Your task to perform on an android device: Search for pizza restaurants on Maps Image 0: 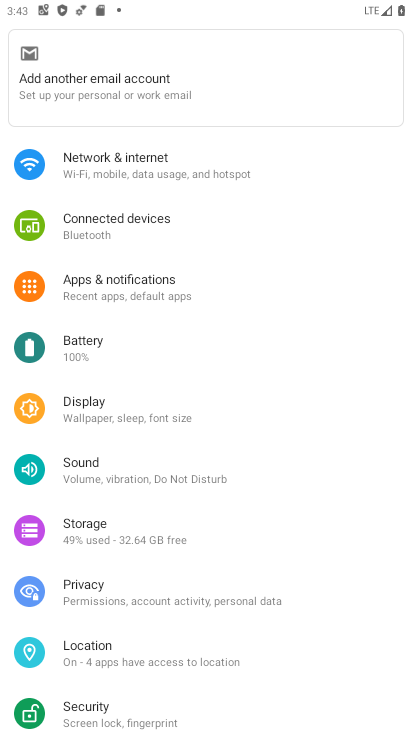
Step 0: press home button
Your task to perform on an android device: Search for pizza restaurants on Maps Image 1: 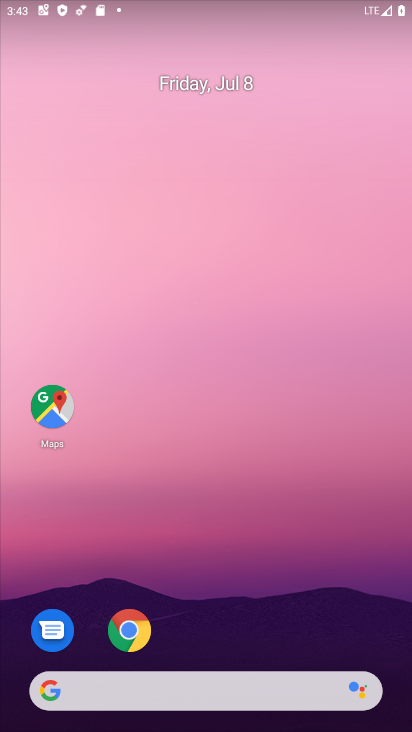
Step 1: click (49, 405)
Your task to perform on an android device: Search for pizza restaurants on Maps Image 2: 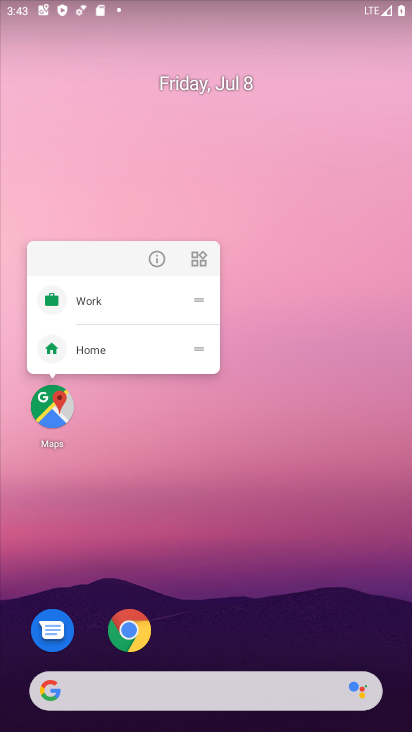
Step 2: click (49, 405)
Your task to perform on an android device: Search for pizza restaurants on Maps Image 3: 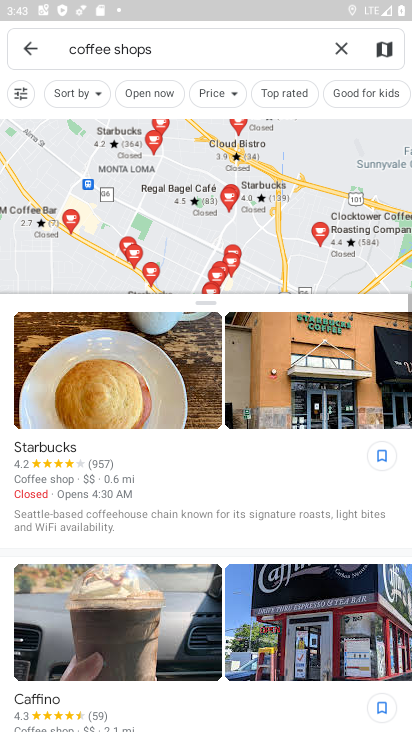
Step 3: click (339, 47)
Your task to perform on an android device: Search for pizza restaurants on Maps Image 4: 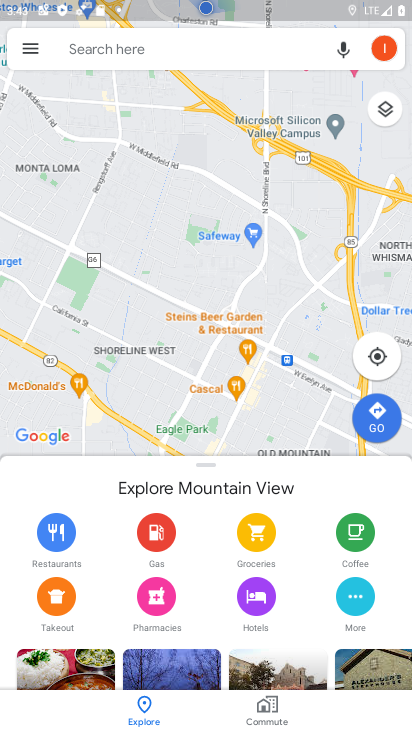
Step 4: click (154, 55)
Your task to perform on an android device: Search for pizza restaurants on Maps Image 5: 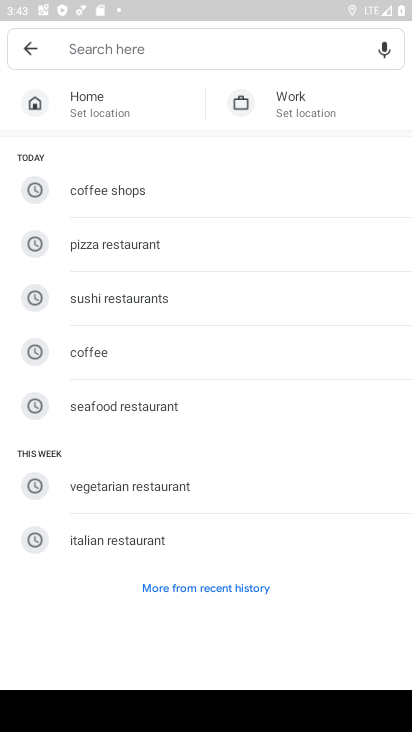
Step 5: click (129, 242)
Your task to perform on an android device: Search for pizza restaurants on Maps Image 6: 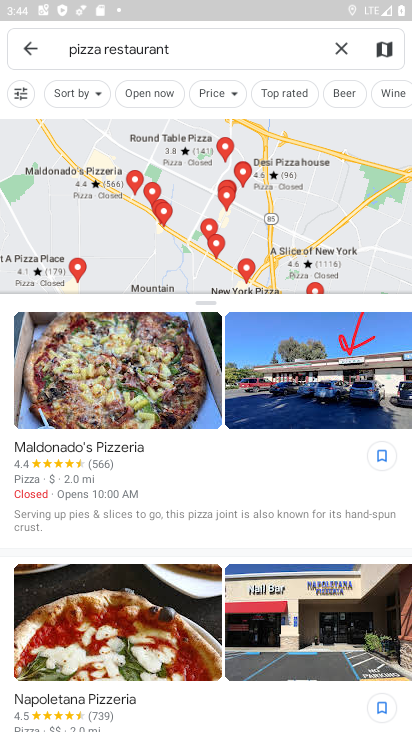
Step 6: task complete